Your task to perform on an android device: turn pop-ups off in chrome Image 0: 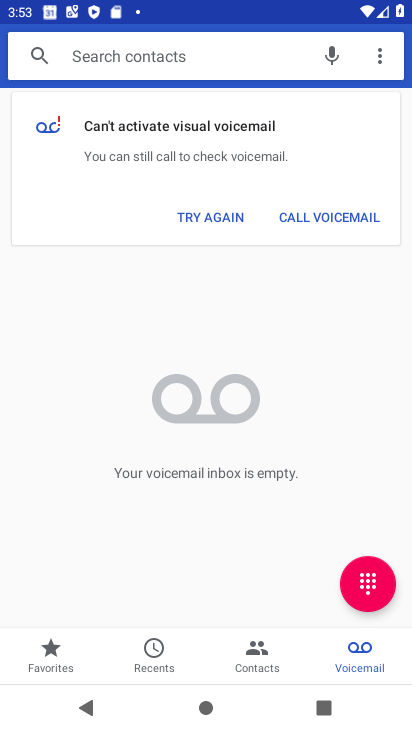
Step 0: press home button
Your task to perform on an android device: turn pop-ups off in chrome Image 1: 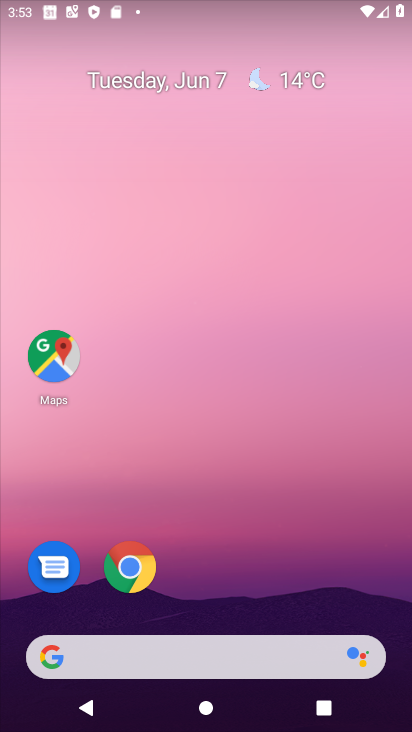
Step 1: click (146, 576)
Your task to perform on an android device: turn pop-ups off in chrome Image 2: 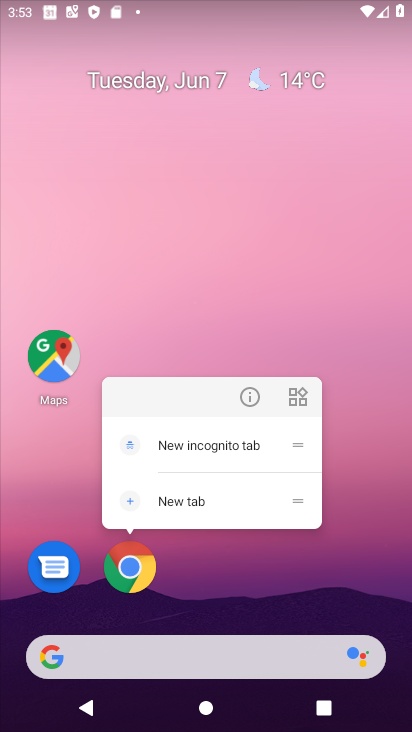
Step 2: click (130, 552)
Your task to perform on an android device: turn pop-ups off in chrome Image 3: 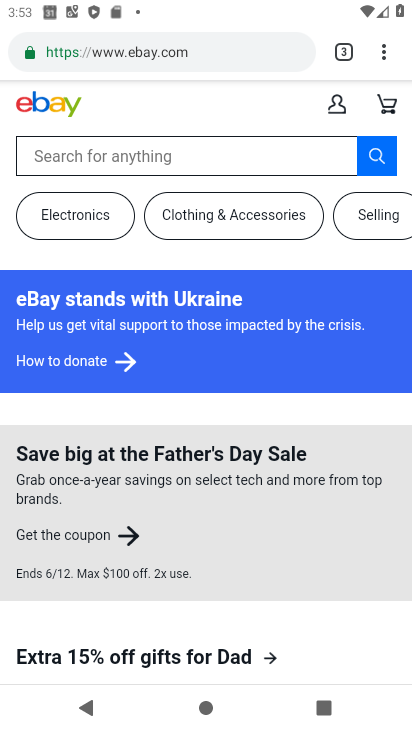
Step 3: drag from (381, 55) to (193, 618)
Your task to perform on an android device: turn pop-ups off in chrome Image 4: 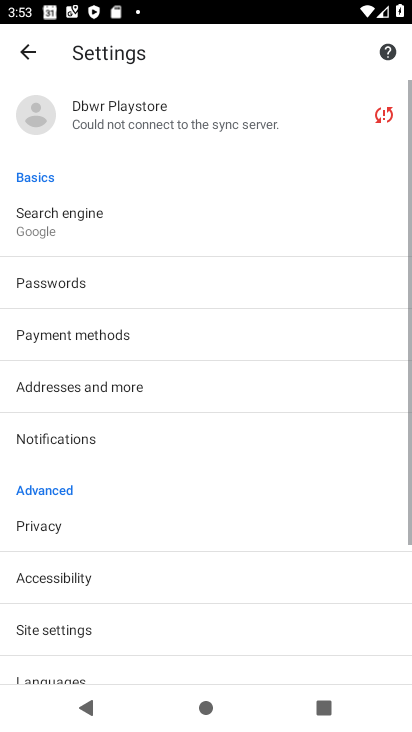
Step 4: drag from (203, 601) to (216, 354)
Your task to perform on an android device: turn pop-ups off in chrome Image 5: 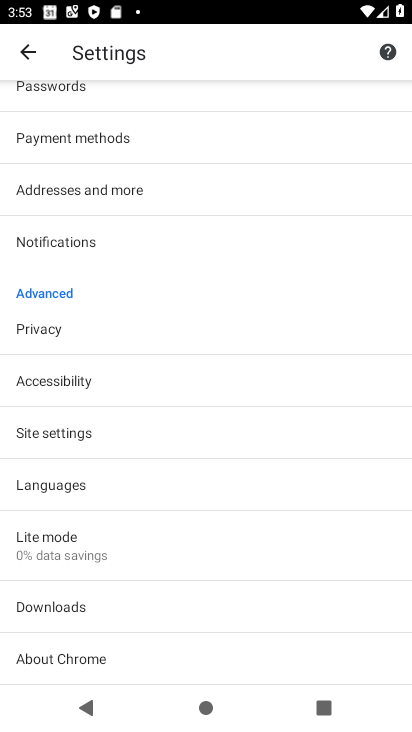
Step 5: click (138, 435)
Your task to perform on an android device: turn pop-ups off in chrome Image 6: 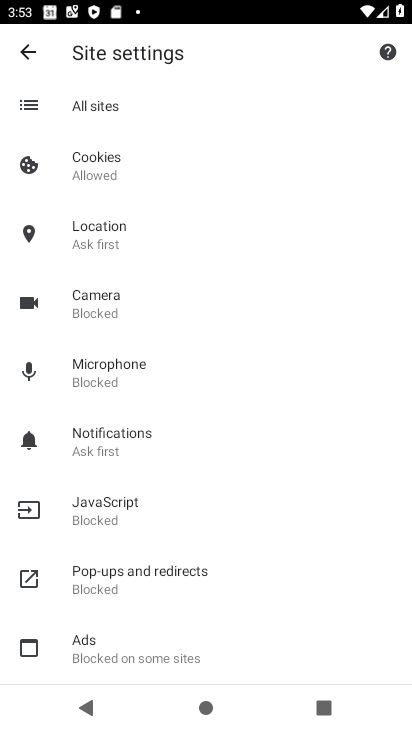
Step 6: click (202, 585)
Your task to perform on an android device: turn pop-ups off in chrome Image 7: 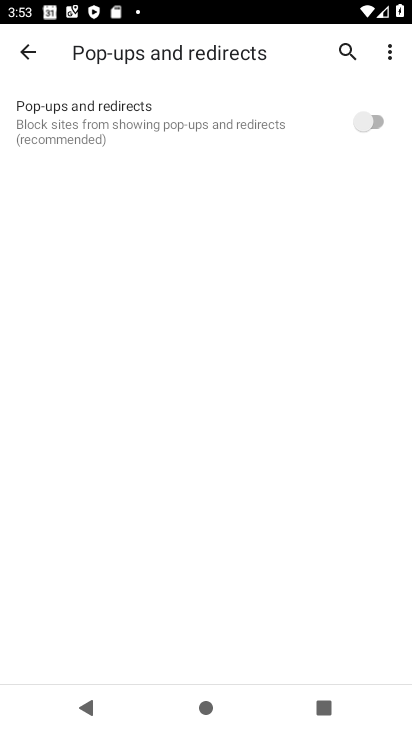
Step 7: task complete